Your task to perform on an android device: What's the weather going to be tomorrow? Image 0: 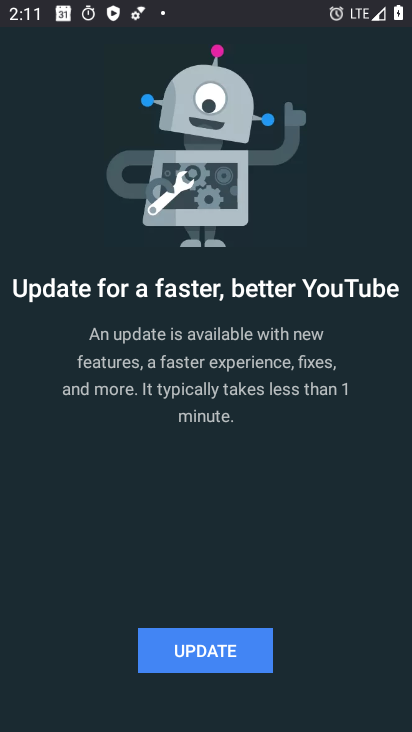
Step 0: press home button
Your task to perform on an android device: What's the weather going to be tomorrow? Image 1: 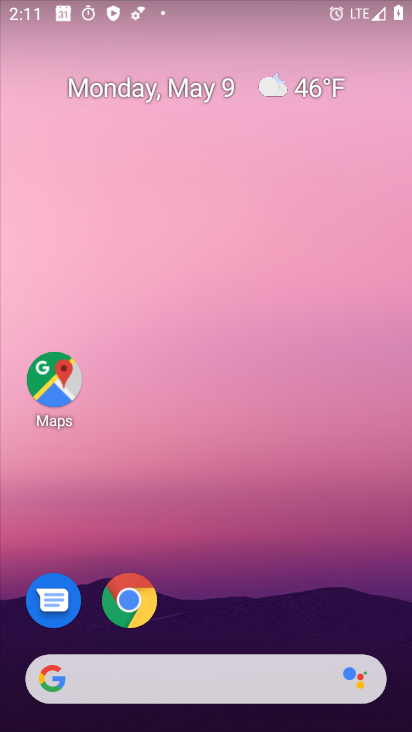
Step 1: click (341, 85)
Your task to perform on an android device: What's the weather going to be tomorrow? Image 2: 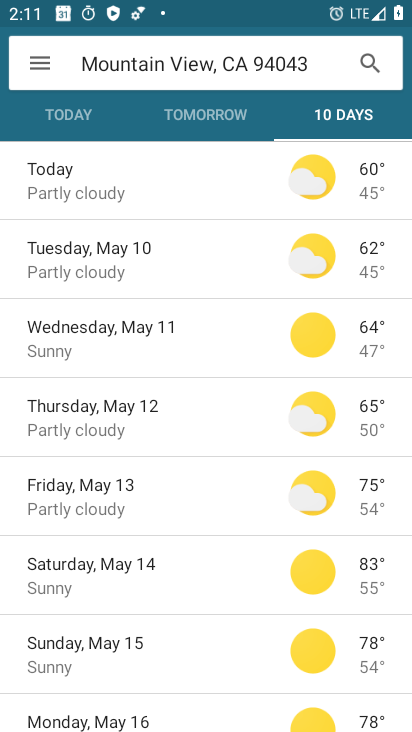
Step 2: click (195, 123)
Your task to perform on an android device: What's the weather going to be tomorrow? Image 3: 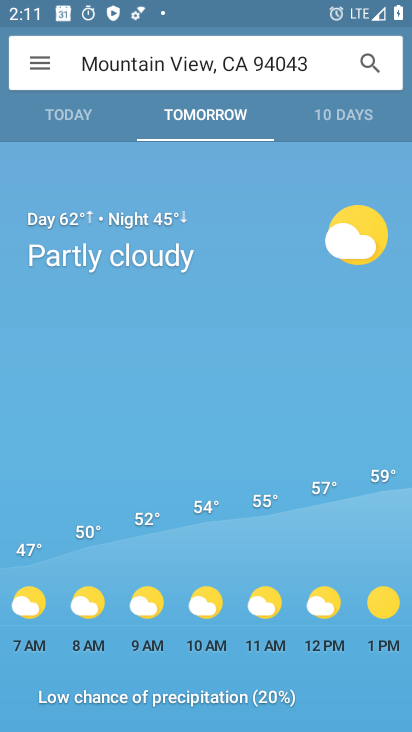
Step 3: press back button
Your task to perform on an android device: What's the weather going to be tomorrow? Image 4: 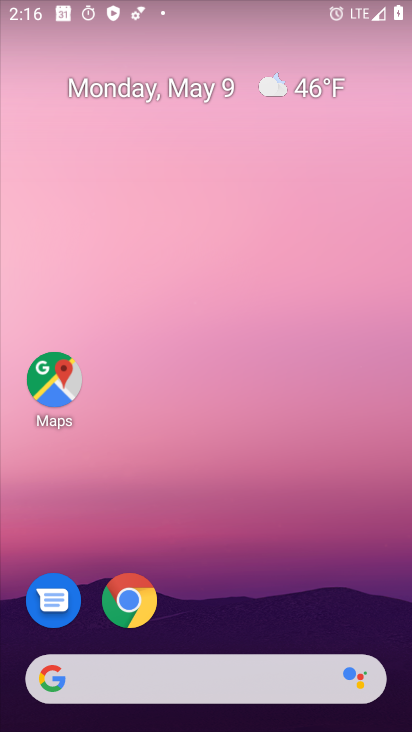
Step 4: click (284, 98)
Your task to perform on an android device: What's the weather going to be tomorrow? Image 5: 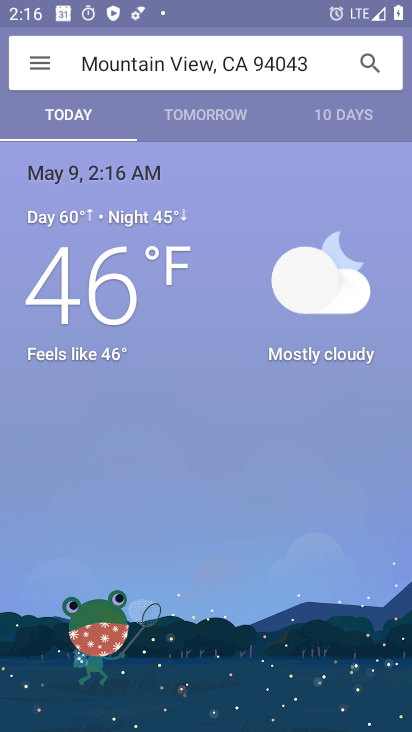
Step 5: click (196, 129)
Your task to perform on an android device: What's the weather going to be tomorrow? Image 6: 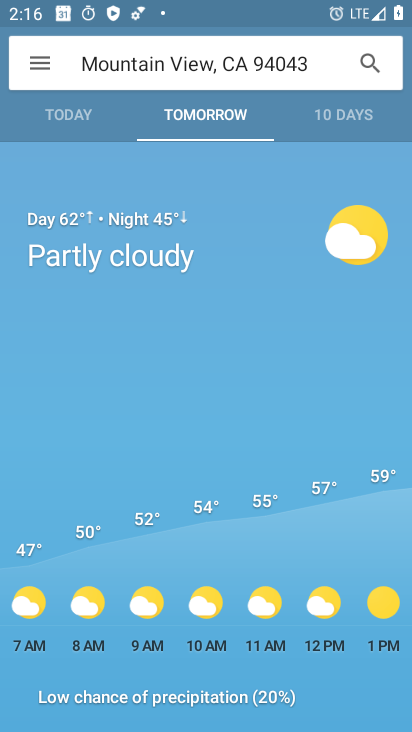
Step 6: task complete